Your task to perform on an android device: Add "dell xps" to the cart on ebay Image 0: 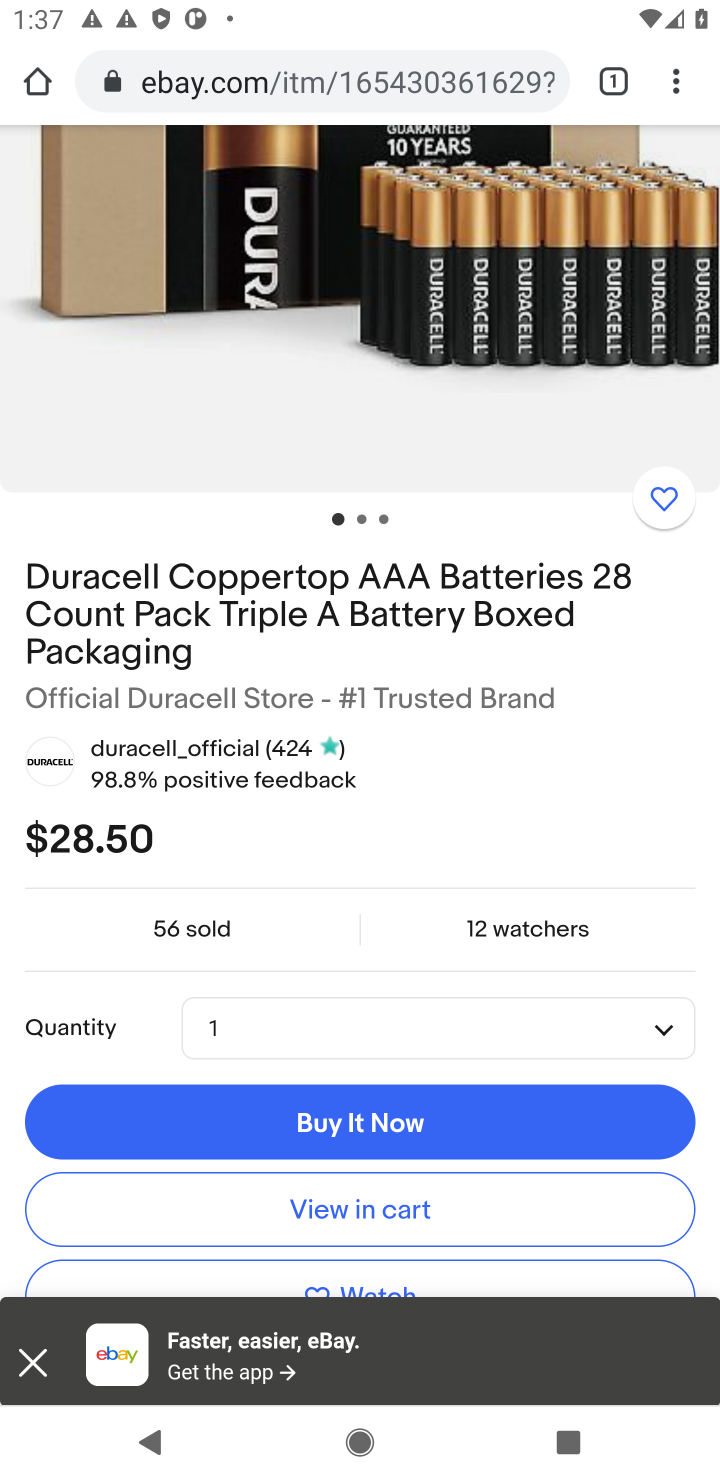
Step 0: press home button
Your task to perform on an android device: Add "dell xps" to the cart on ebay Image 1: 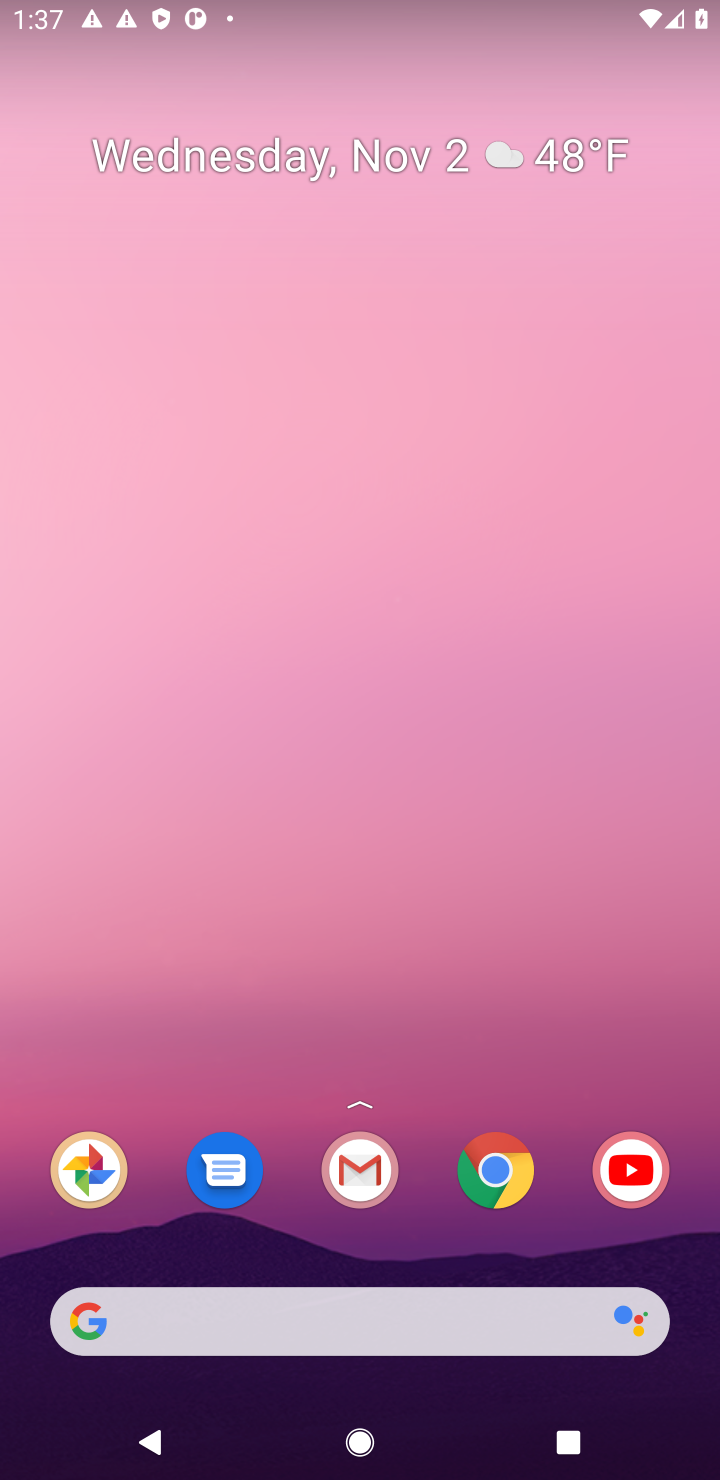
Step 1: drag from (466, 1253) to (482, 472)
Your task to perform on an android device: Add "dell xps" to the cart on ebay Image 2: 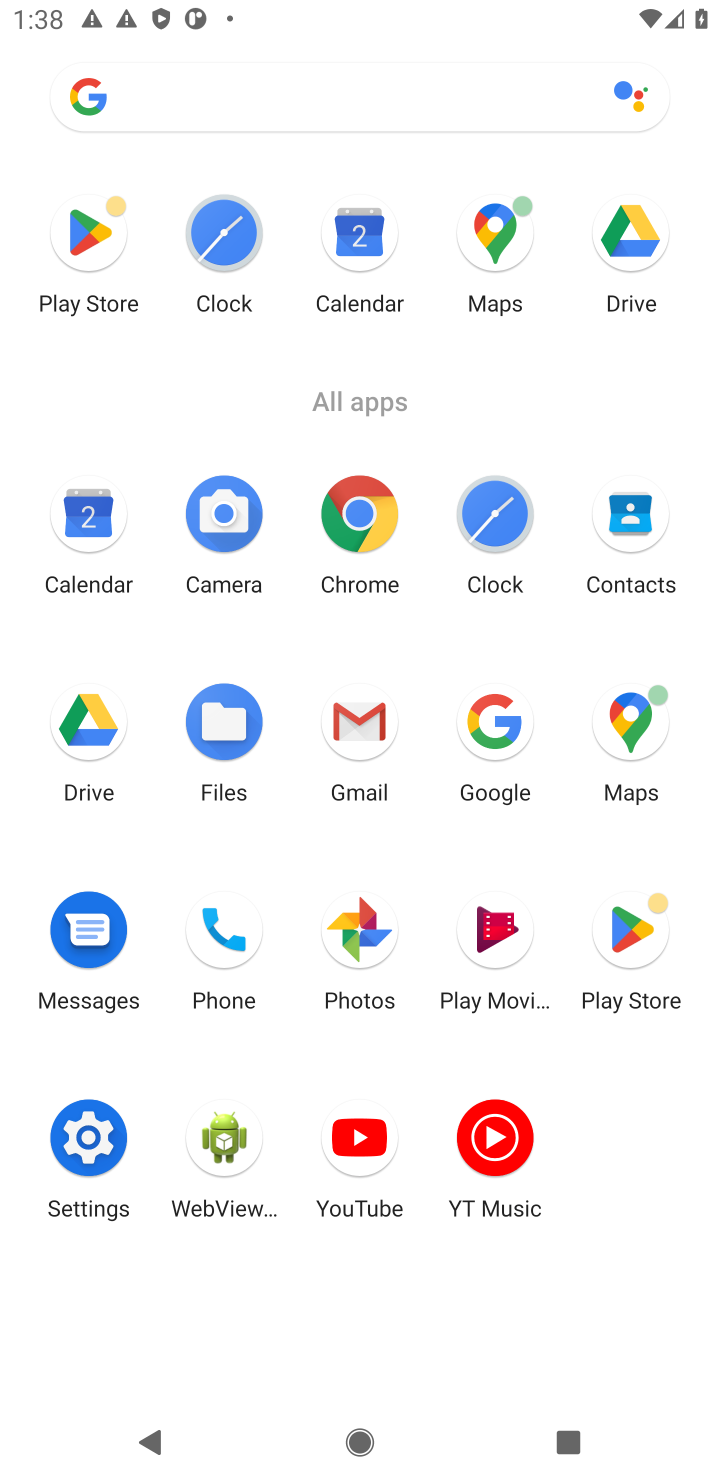
Step 2: click (497, 773)
Your task to perform on an android device: Add "dell xps" to the cart on ebay Image 3: 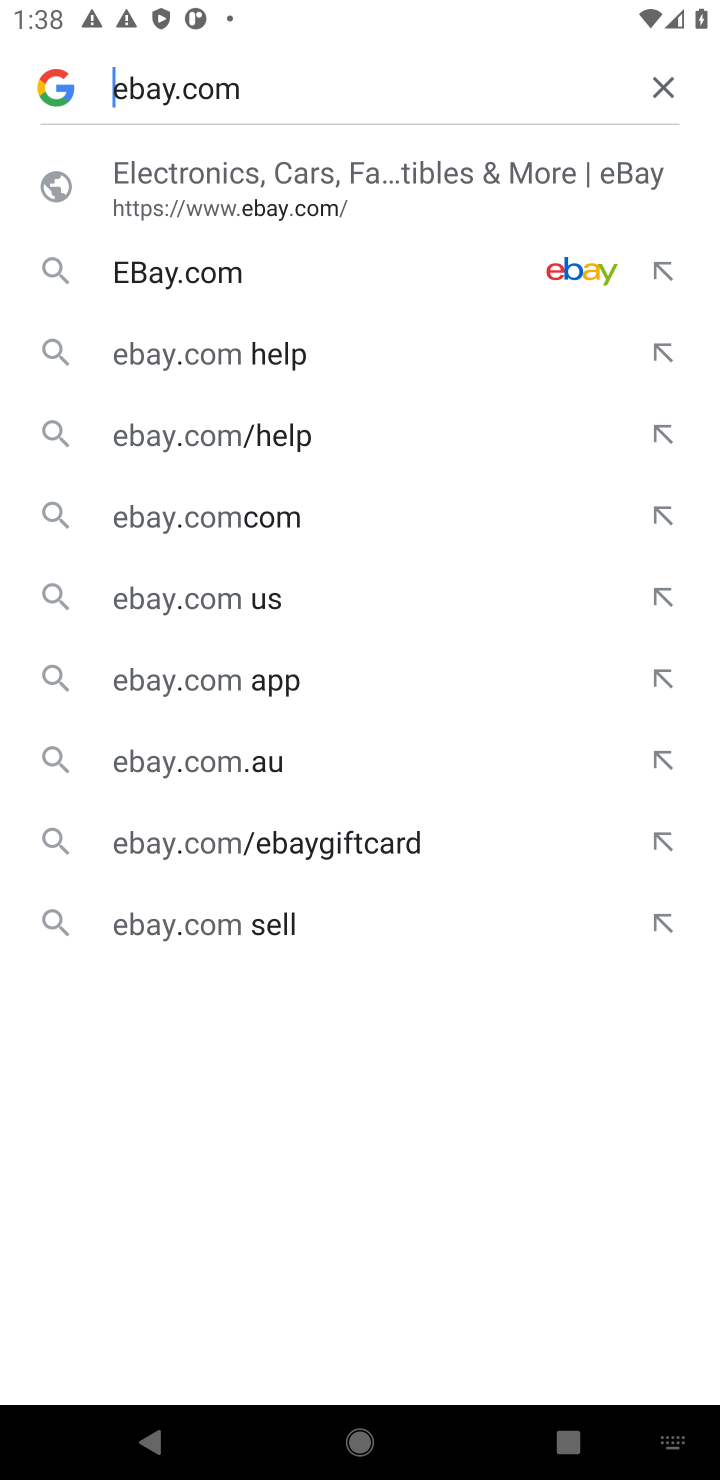
Step 3: click (669, 85)
Your task to perform on an android device: Add "dell xps" to the cart on ebay Image 4: 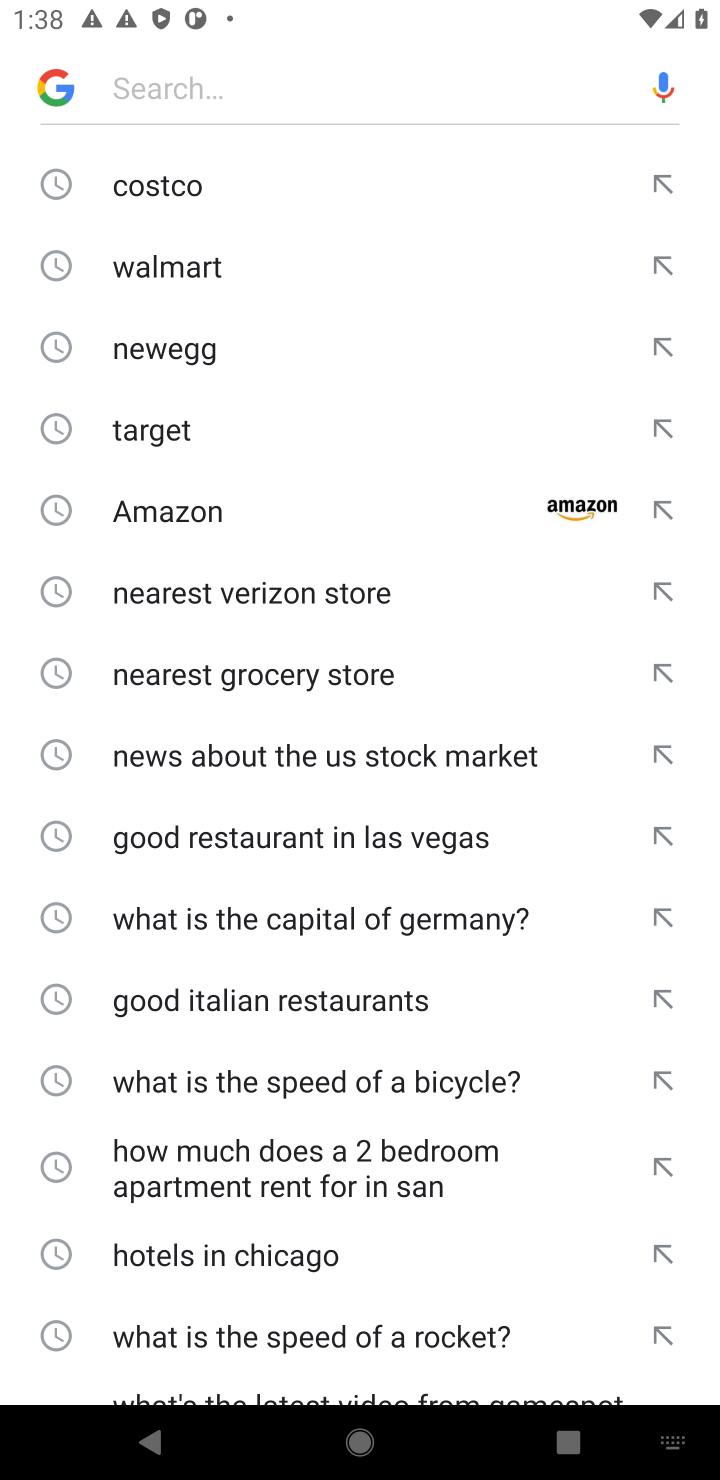
Step 4: type "ebay"
Your task to perform on an android device: Add "dell xps" to the cart on ebay Image 5: 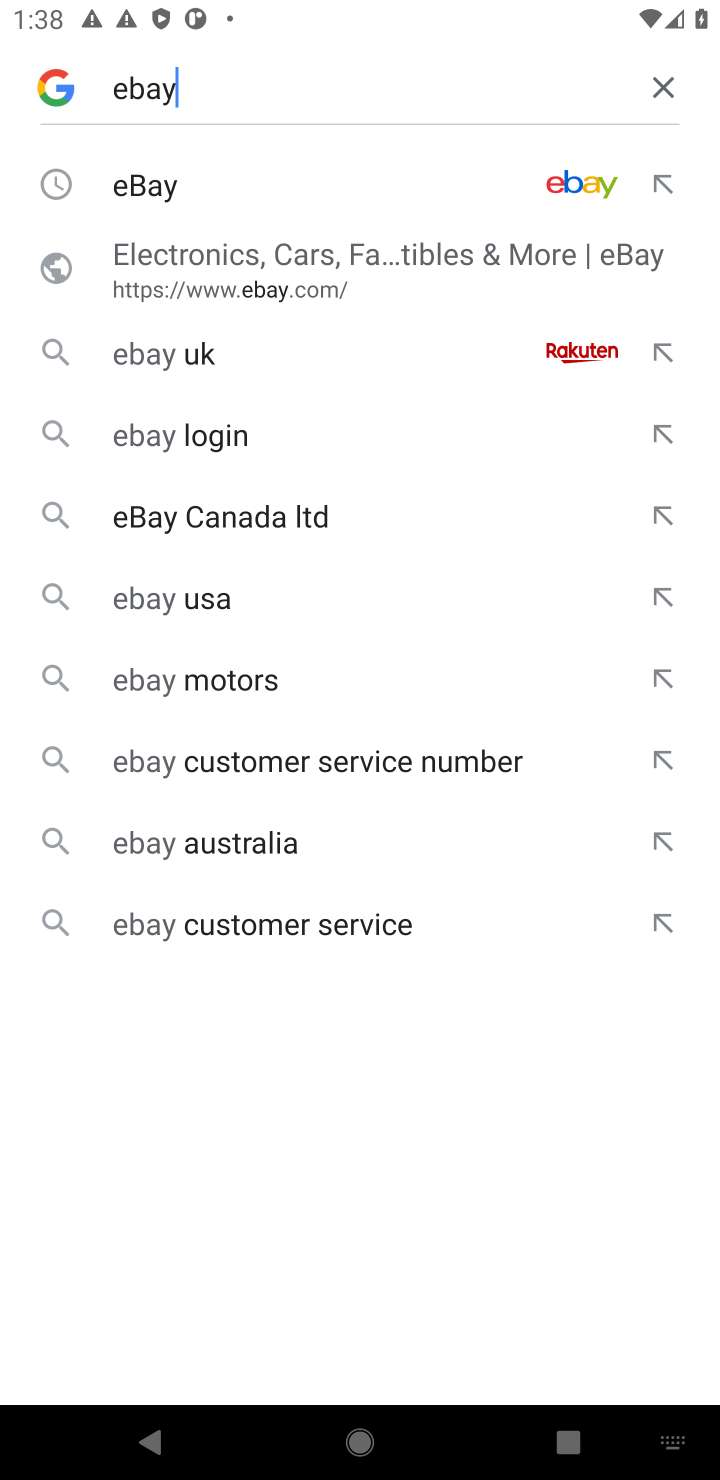
Step 5: click (504, 192)
Your task to perform on an android device: Add "dell xps" to the cart on ebay Image 6: 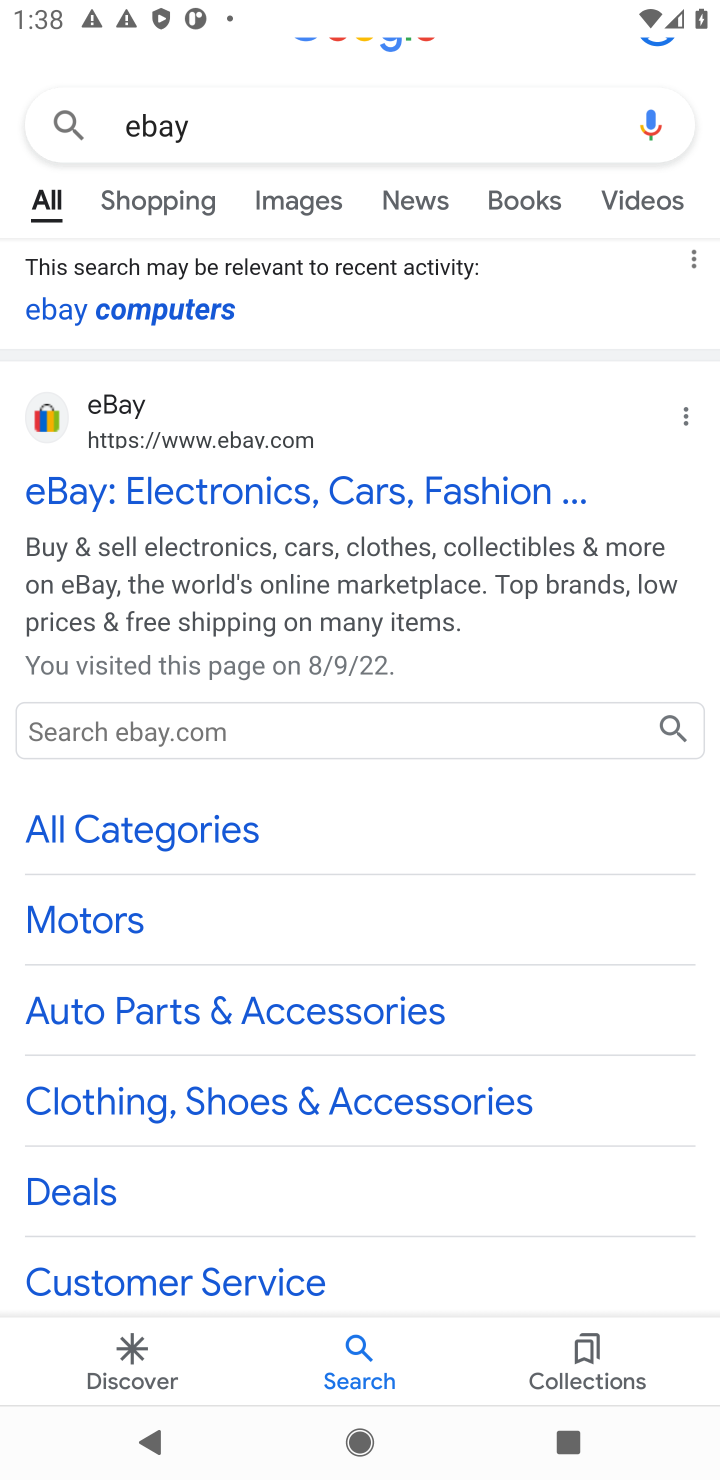
Step 6: click (241, 508)
Your task to perform on an android device: Add "dell xps" to the cart on ebay Image 7: 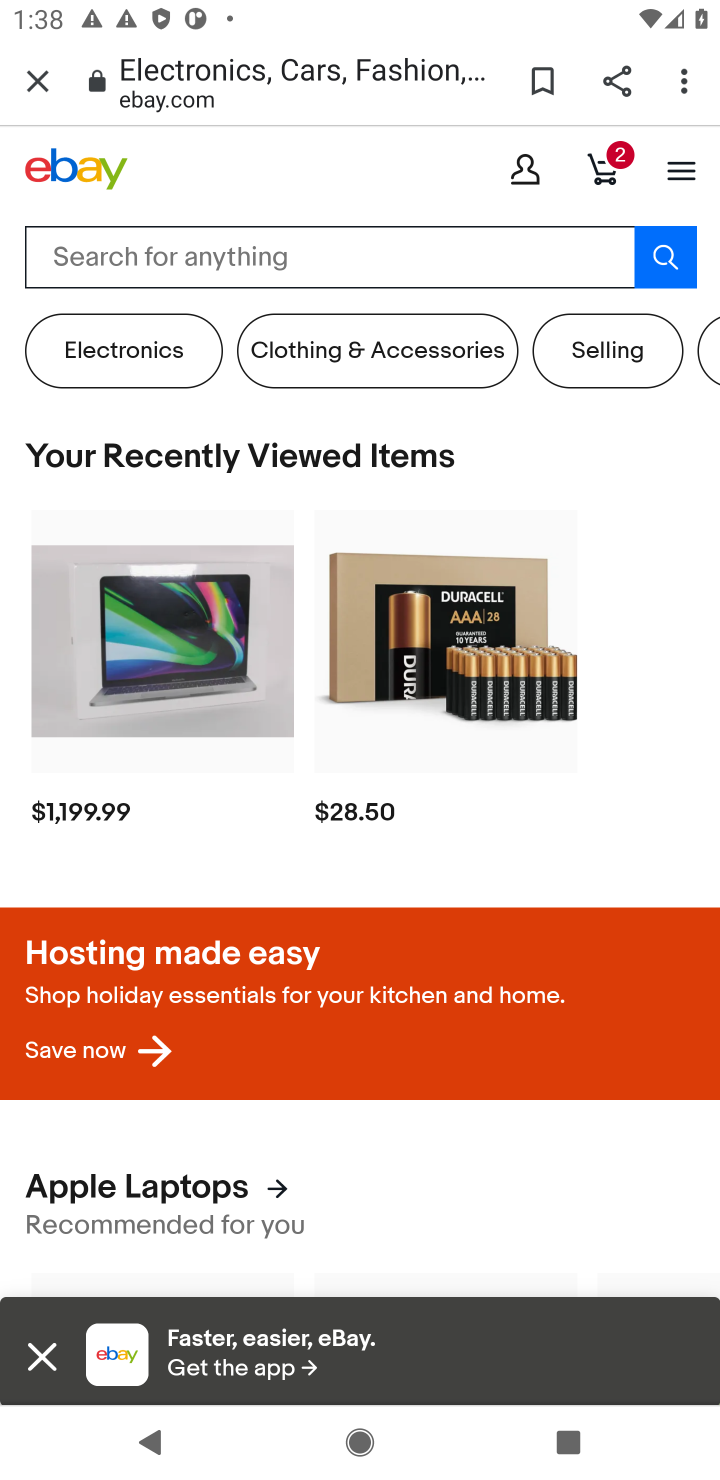
Step 7: click (553, 253)
Your task to perform on an android device: Add "dell xps" to the cart on ebay Image 8: 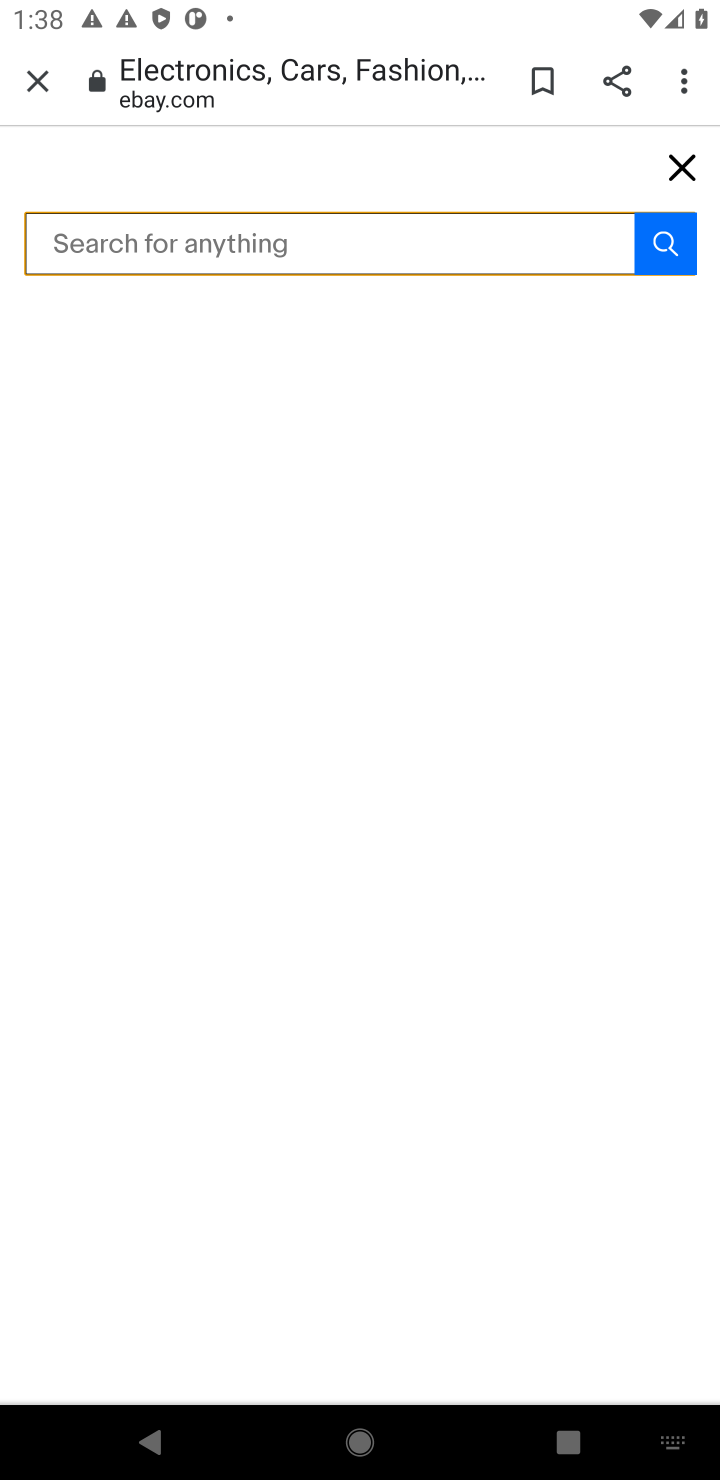
Step 8: type "dell xps"
Your task to perform on an android device: Add "dell xps" to the cart on ebay Image 9: 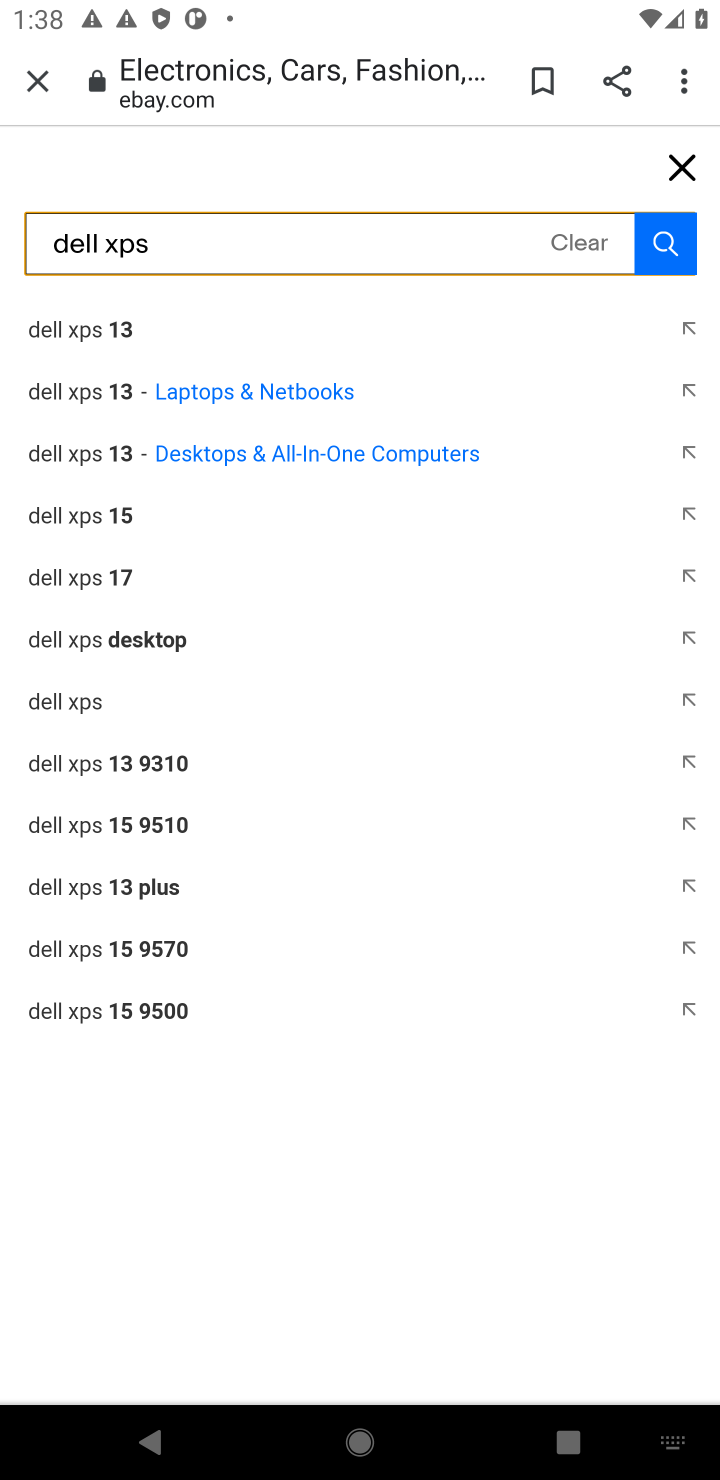
Step 9: click (101, 698)
Your task to perform on an android device: Add "dell xps" to the cart on ebay Image 10: 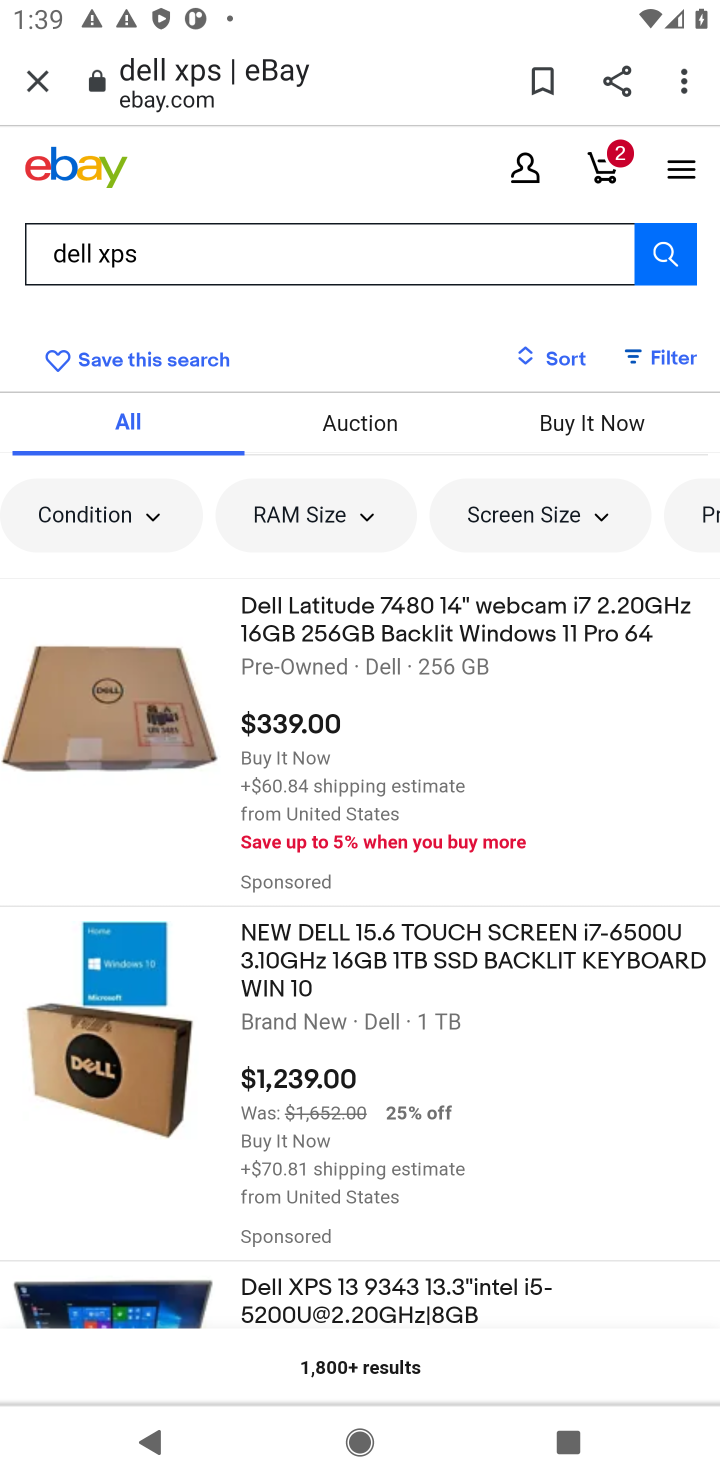
Step 10: click (324, 632)
Your task to perform on an android device: Add "dell xps" to the cart on ebay Image 11: 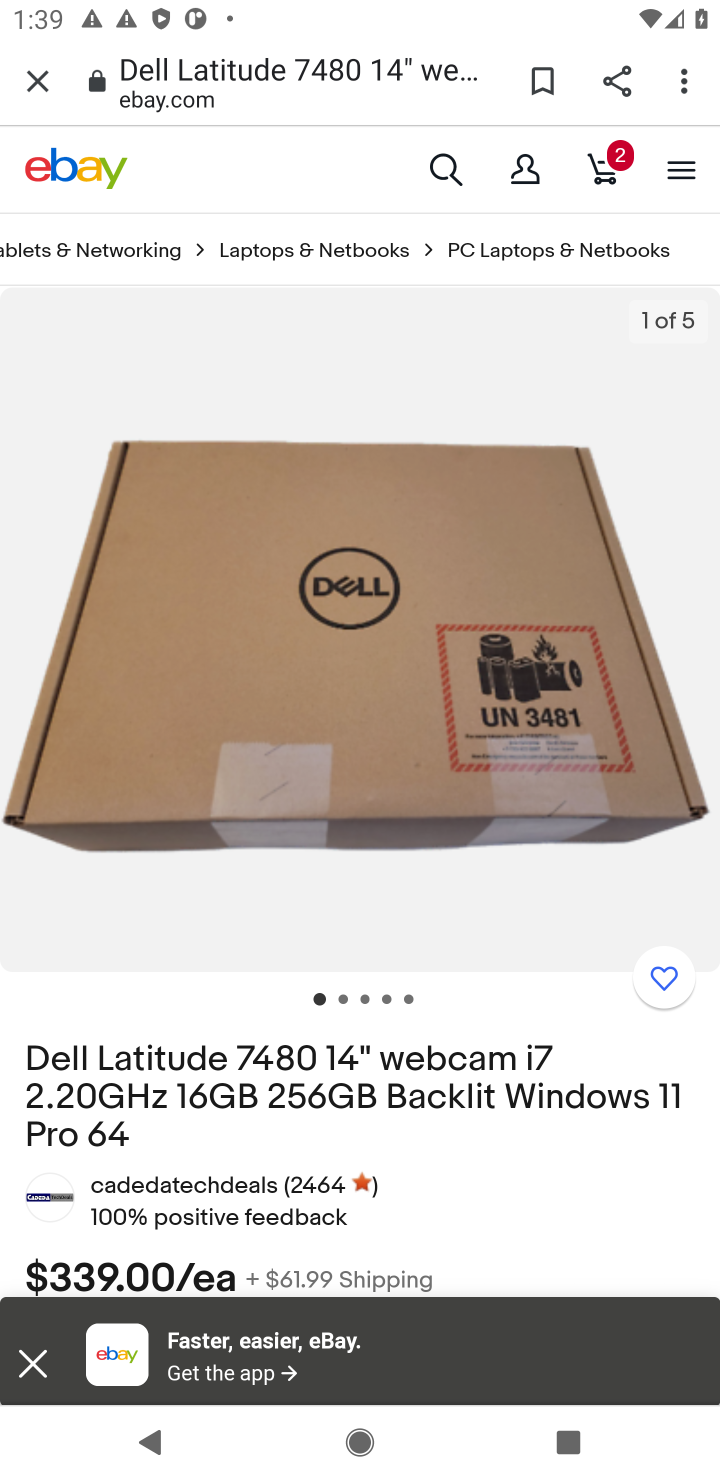
Step 11: drag from (537, 1224) to (658, 539)
Your task to perform on an android device: Add "dell xps" to the cart on ebay Image 12: 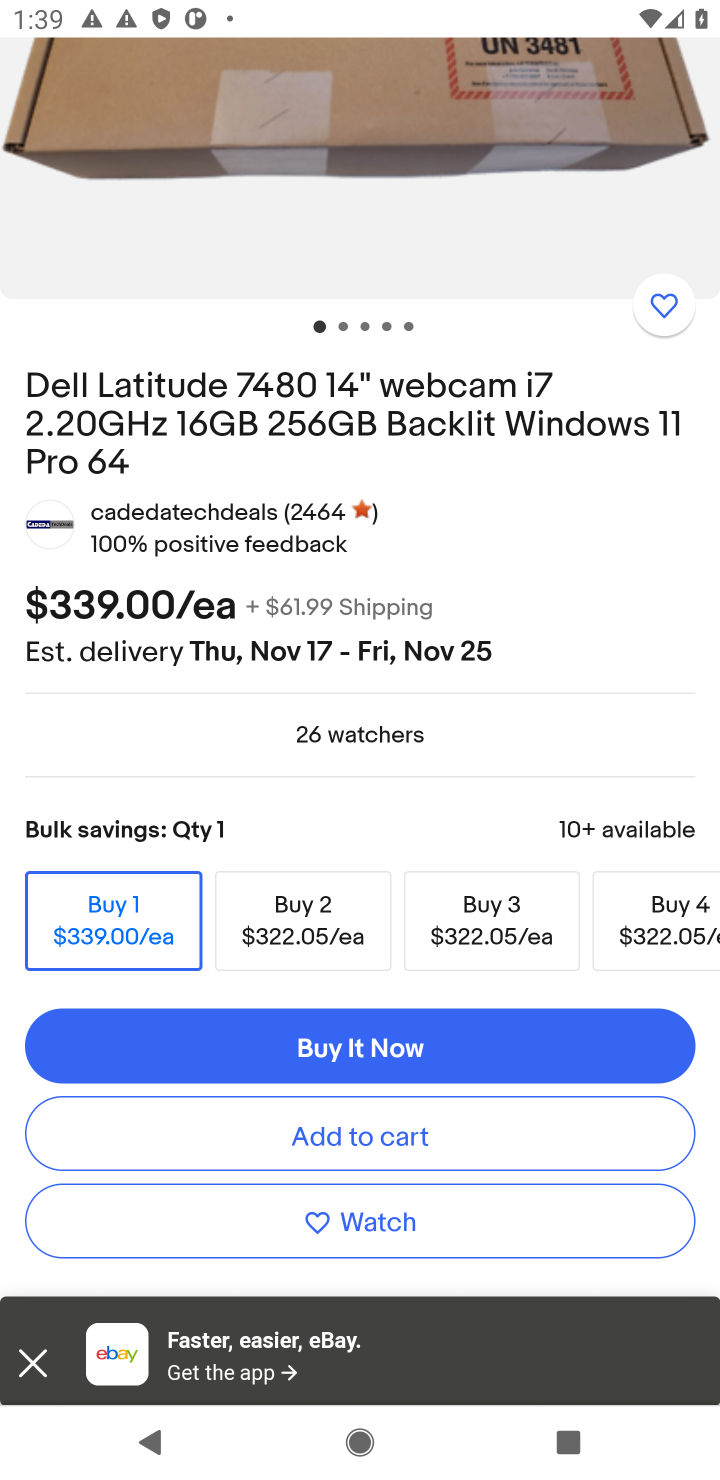
Step 12: click (395, 1124)
Your task to perform on an android device: Add "dell xps" to the cart on ebay Image 13: 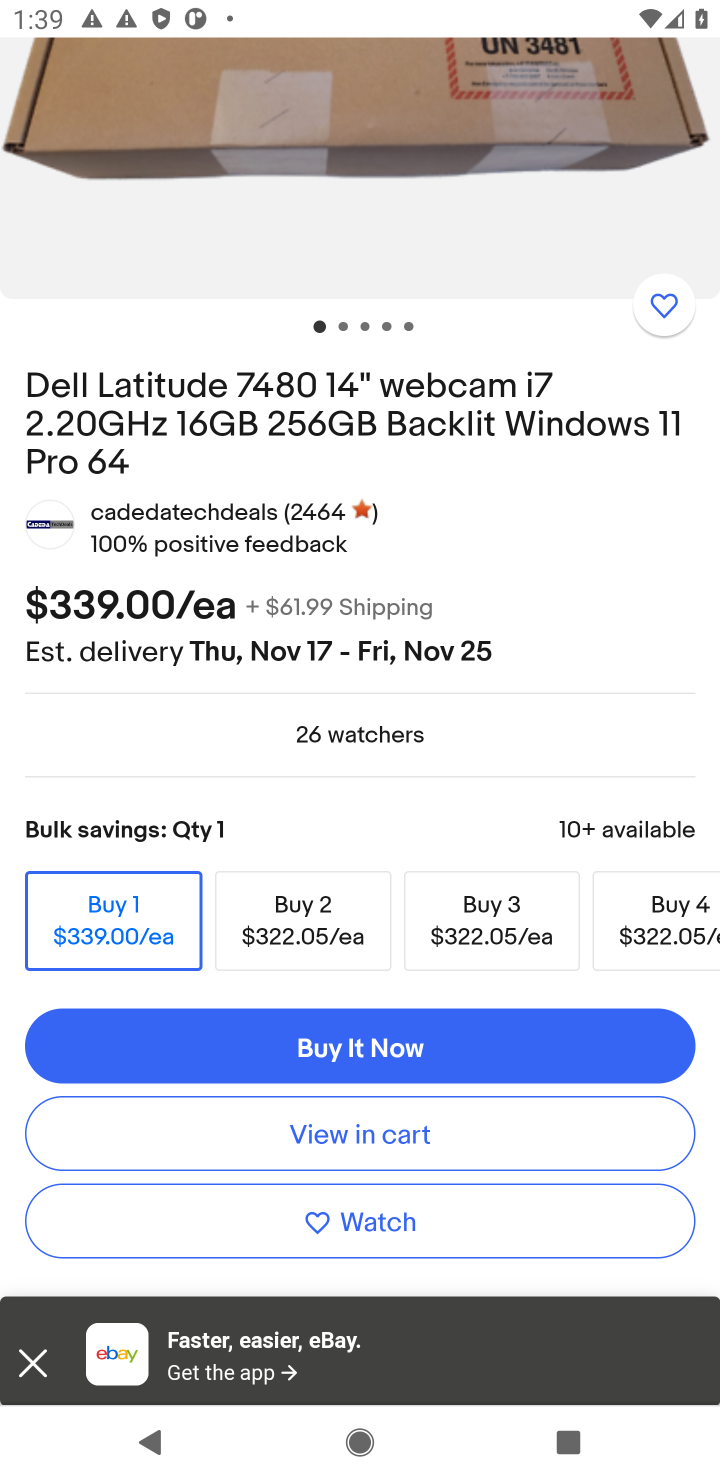
Step 13: task complete